Your task to perform on an android device: Go to location settings Image 0: 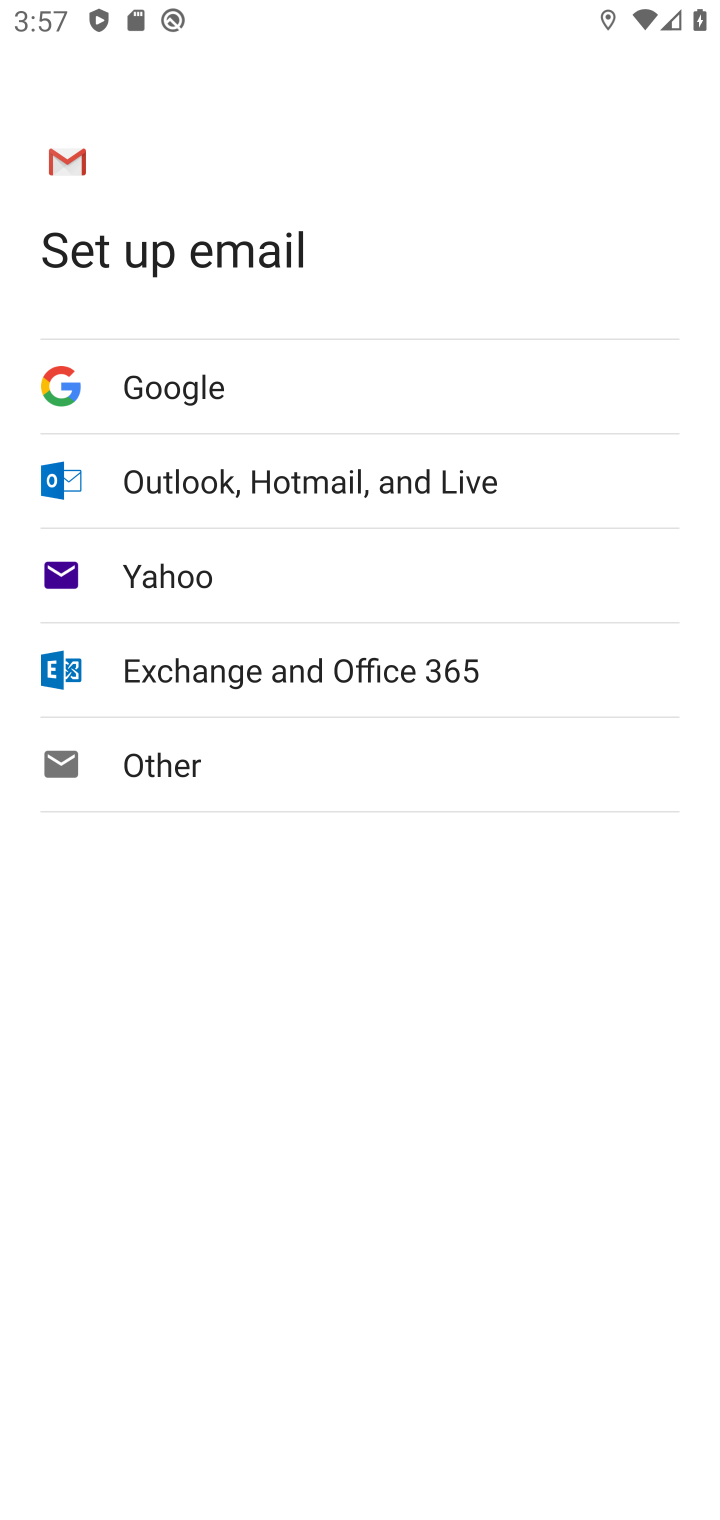
Step 0: press back button
Your task to perform on an android device: Go to location settings Image 1: 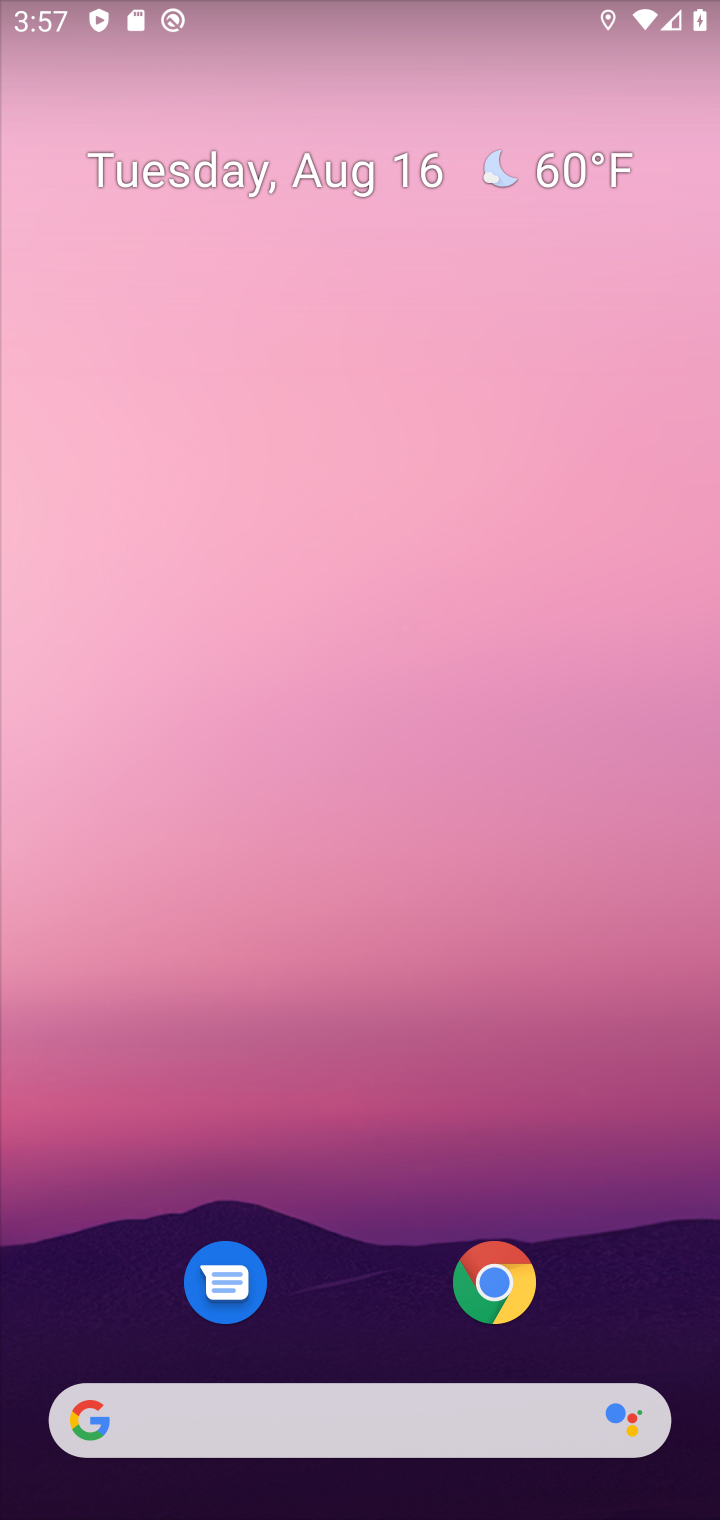
Step 1: drag from (445, 418) to (462, 0)
Your task to perform on an android device: Go to location settings Image 2: 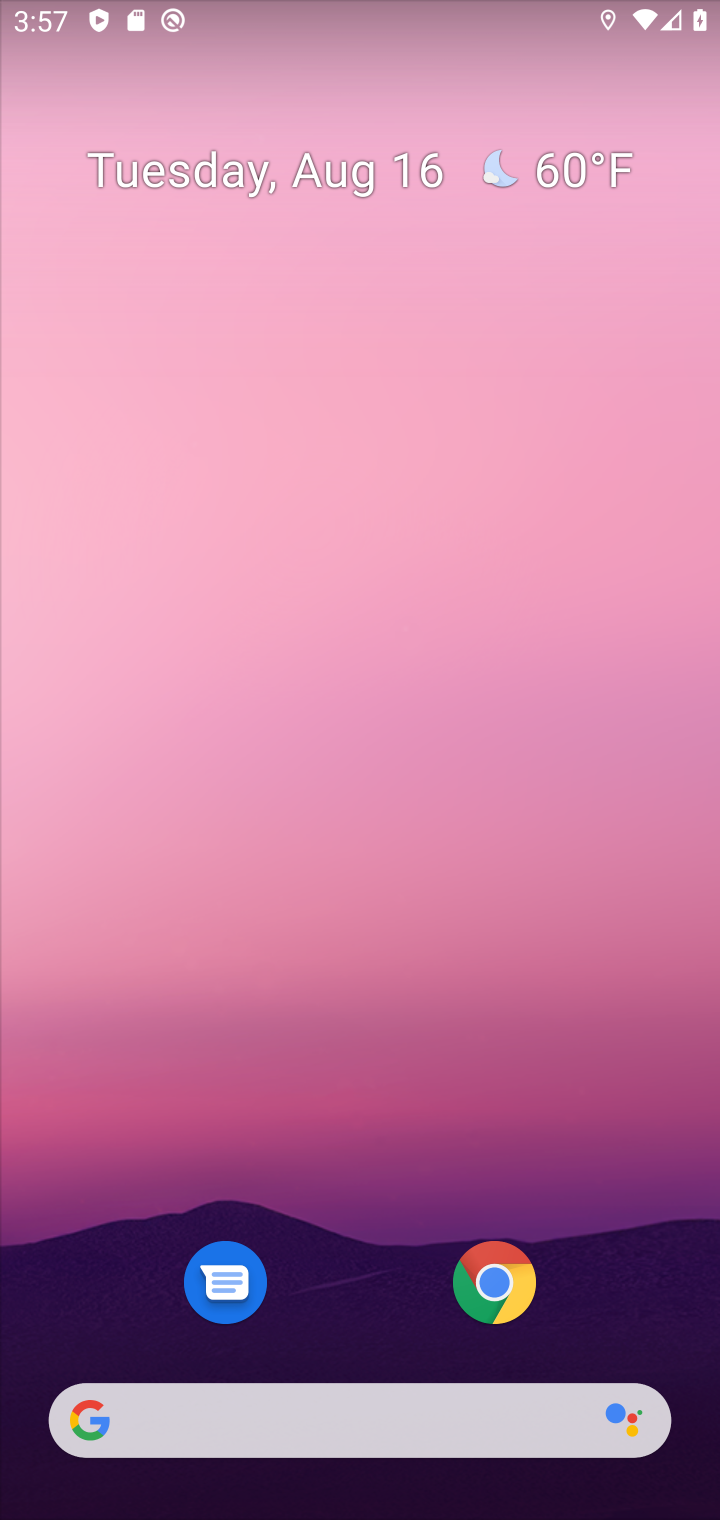
Step 2: drag from (337, 1228) to (480, 7)
Your task to perform on an android device: Go to location settings Image 3: 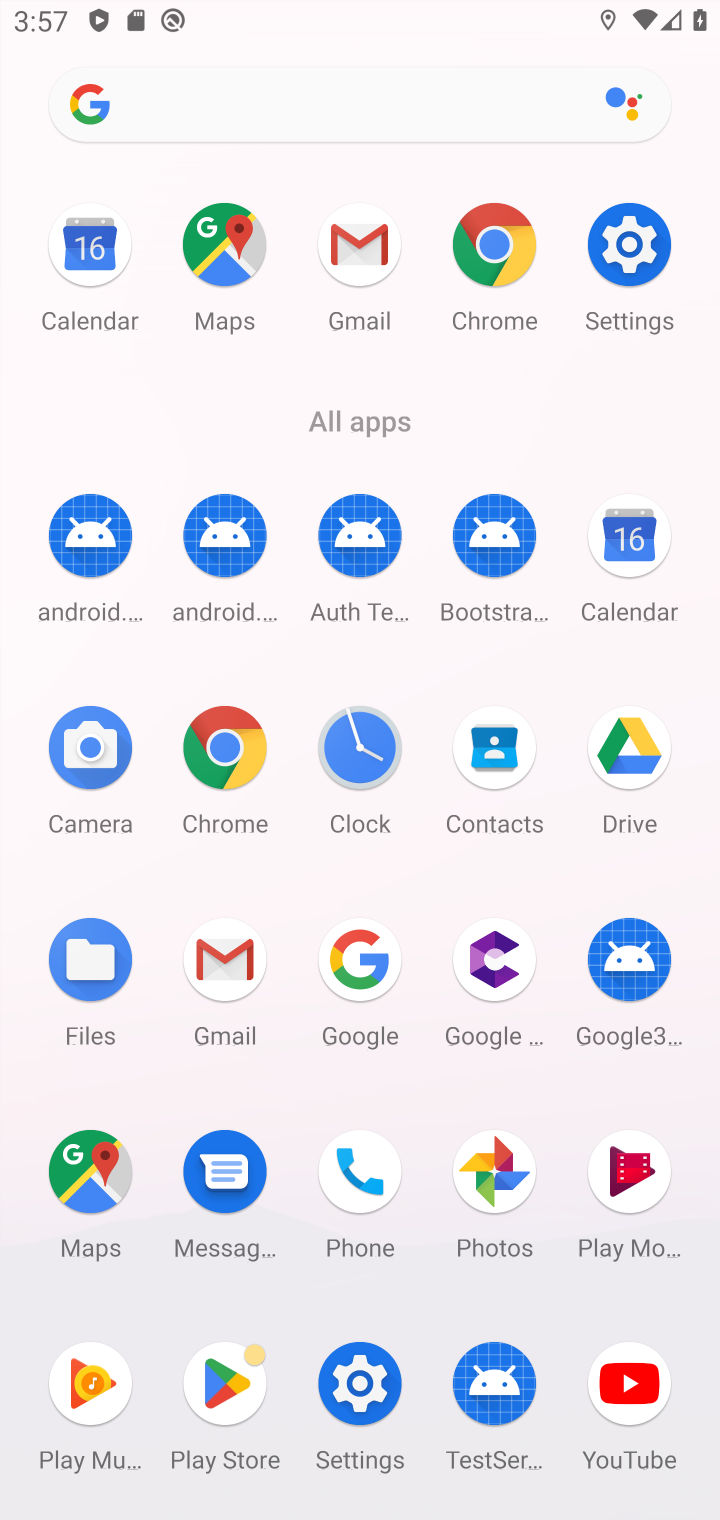
Step 3: click (633, 251)
Your task to perform on an android device: Go to location settings Image 4: 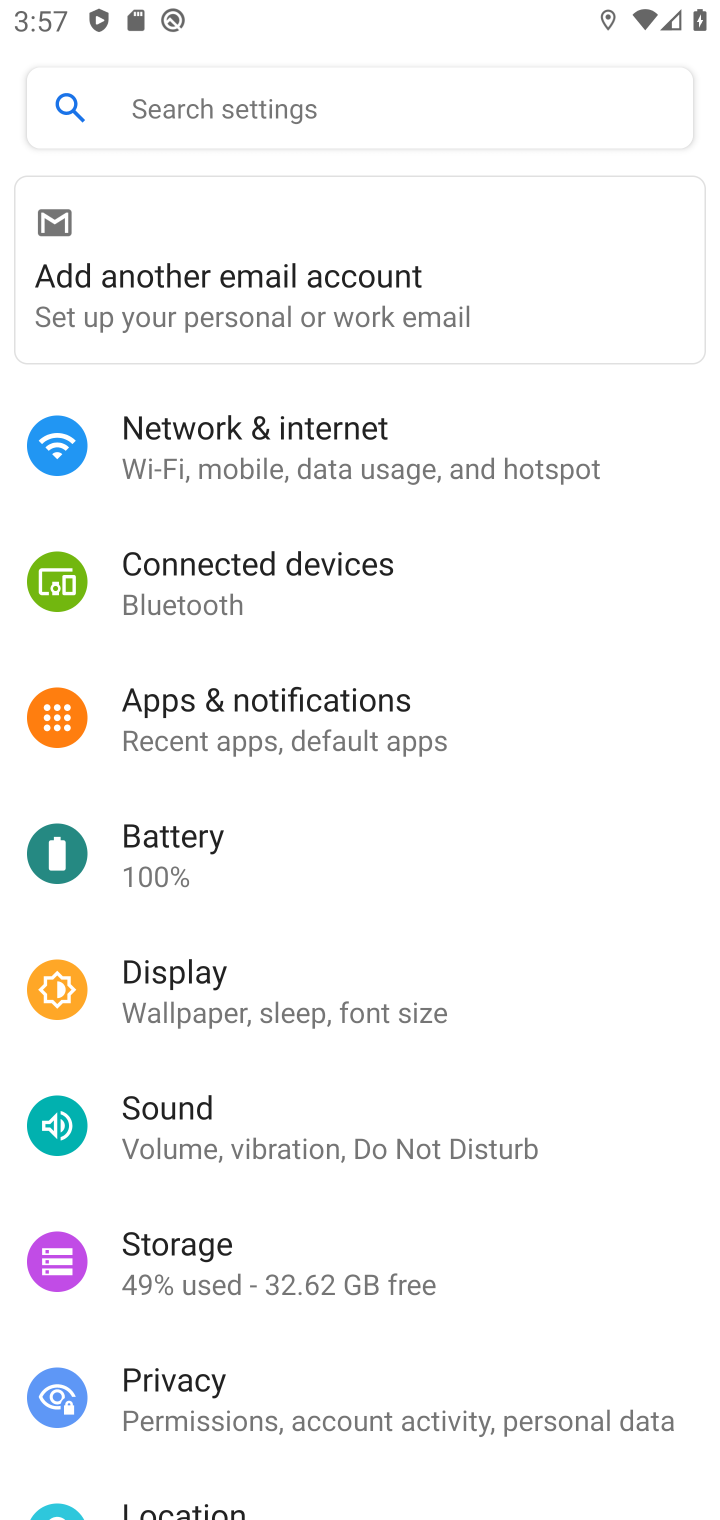
Step 4: drag from (267, 1233) to (438, 397)
Your task to perform on an android device: Go to location settings Image 5: 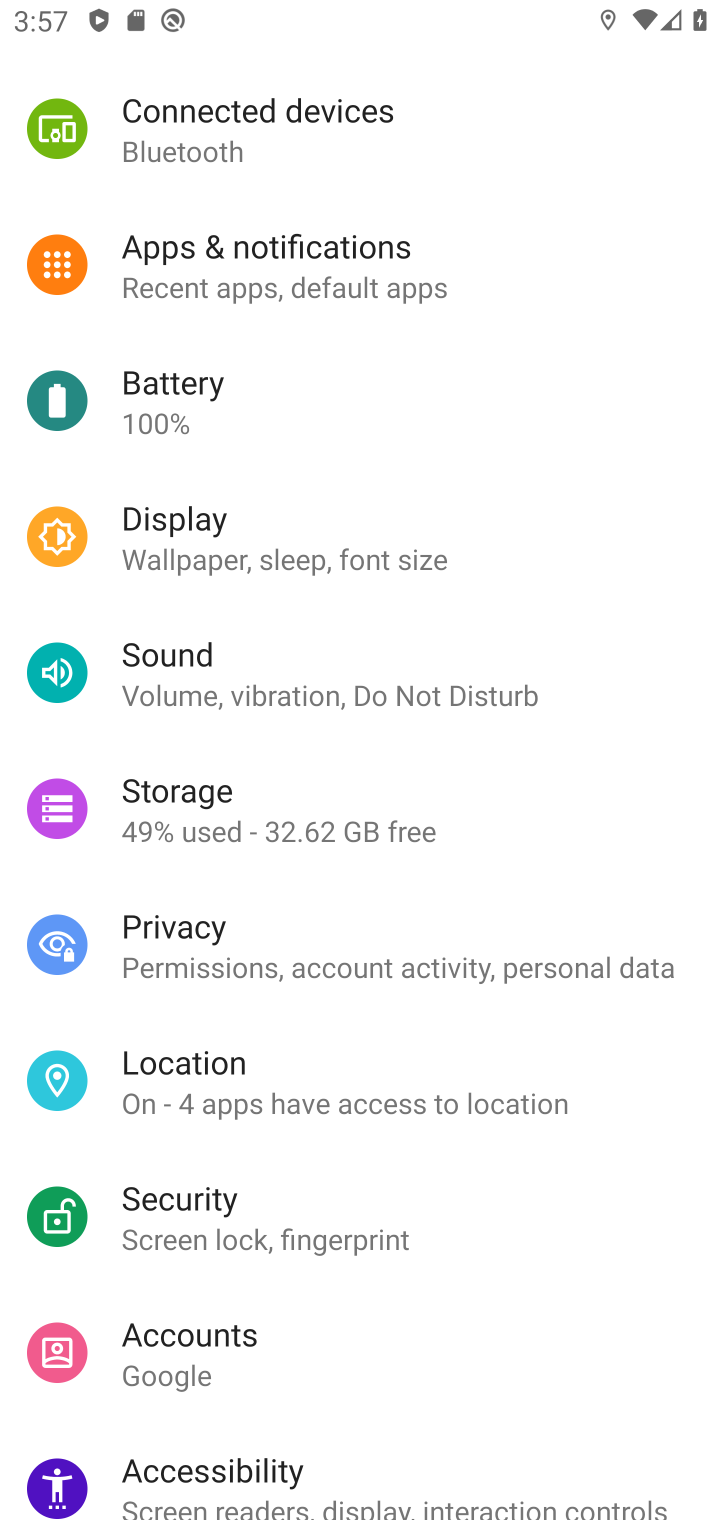
Step 5: click (232, 1101)
Your task to perform on an android device: Go to location settings Image 6: 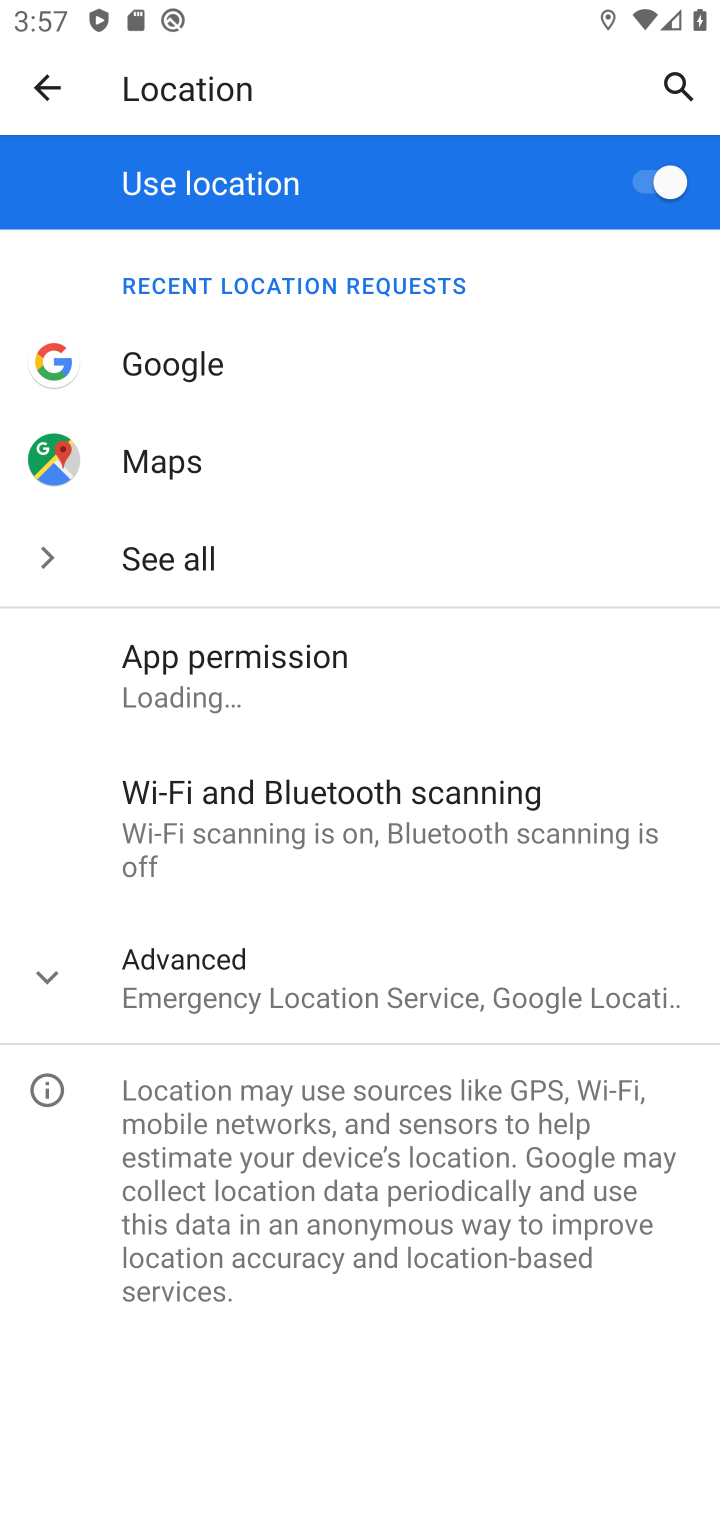
Step 6: task complete